Your task to perform on an android device: What is the recent news? Image 0: 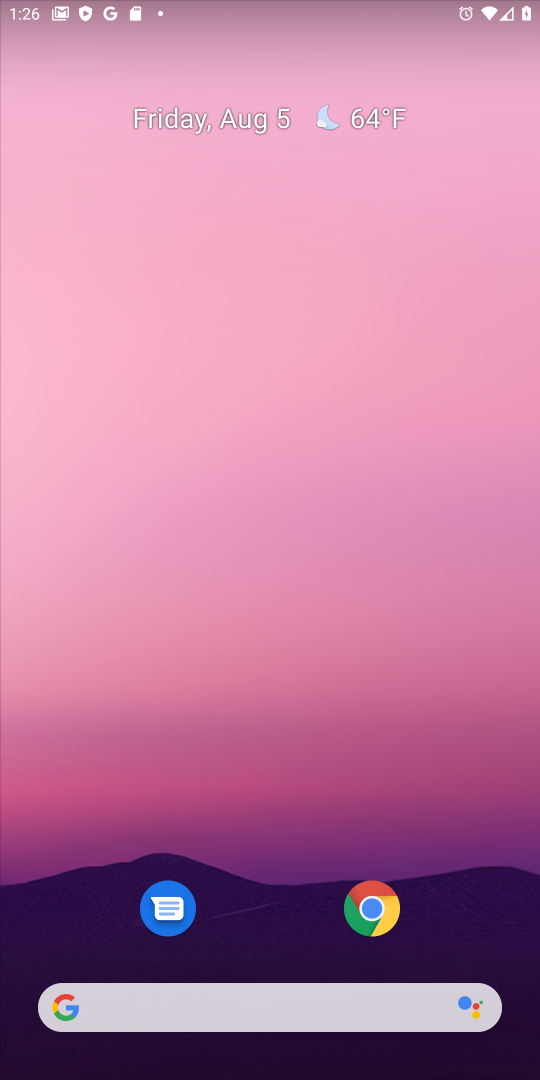
Step 0: press home button
Your task to perform on an android device: What is the recent news? Image 1: 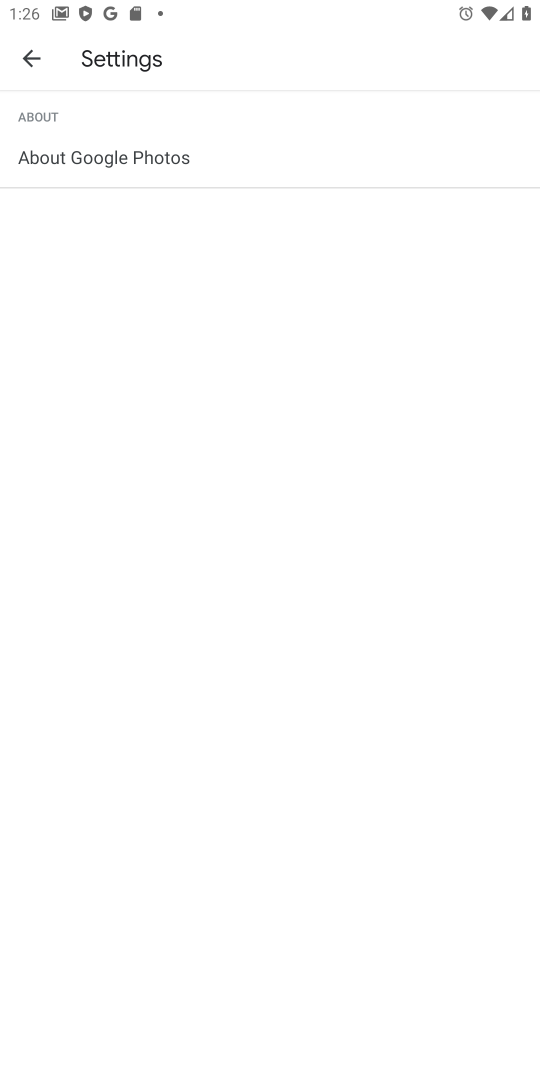
Step 1: click (227, 144)
Your task to perform on an android device: What is the recent news? Image 2: 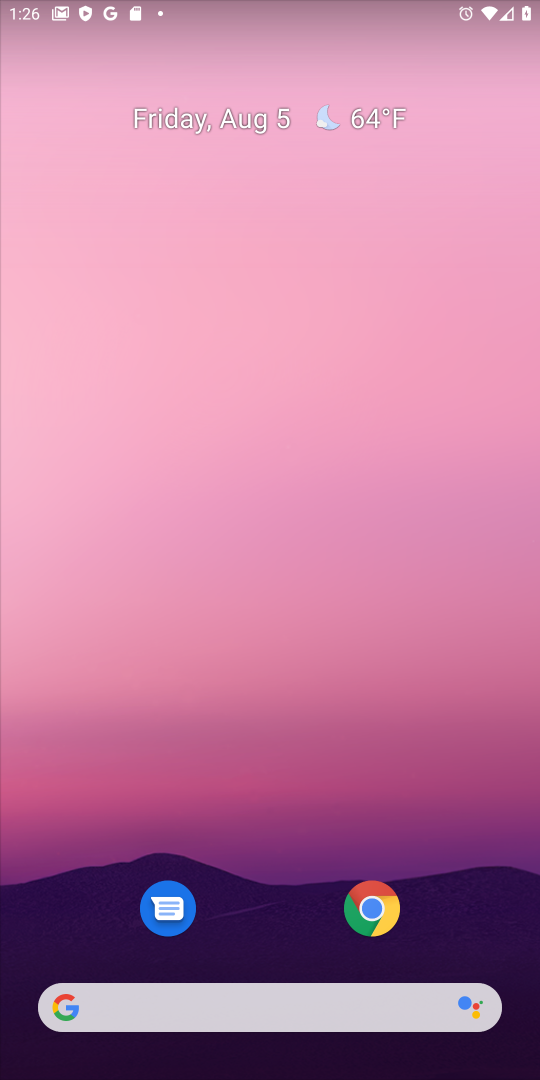
Step 2: click (398, 909)
Your task to perform on an android device: What is the recent news? Image 3: 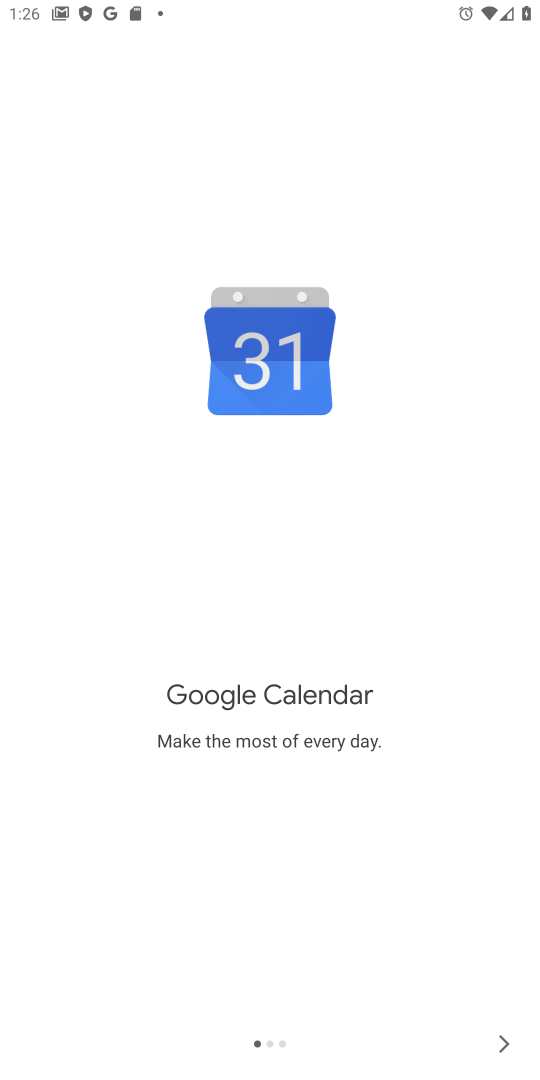
Step 3: press home button
Your task to perform on an android device: What is the recent news? Image 4: 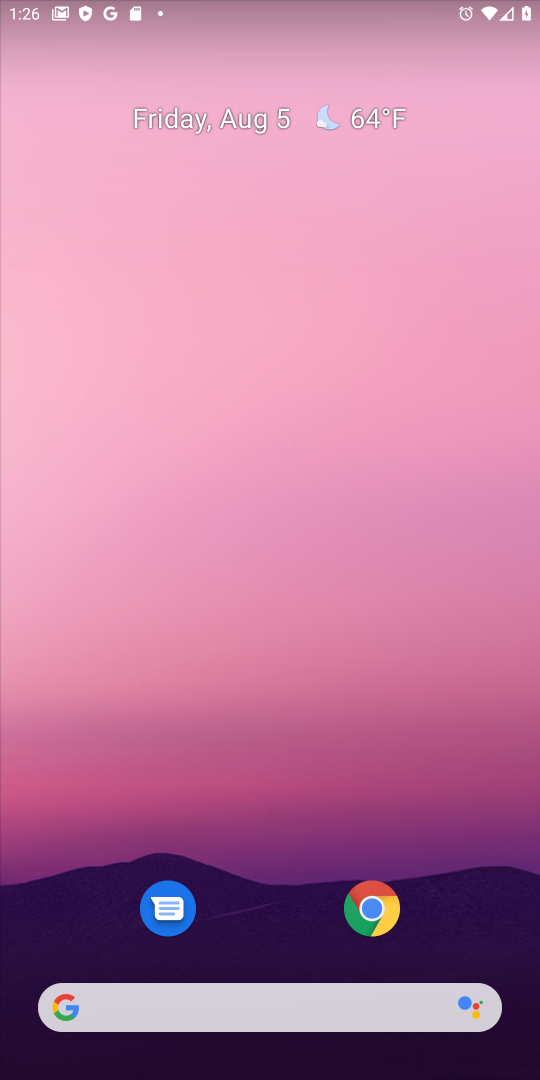
Step 4: click (374, 939)
Your task to perform on an android device: What is the recent news? Image 5: 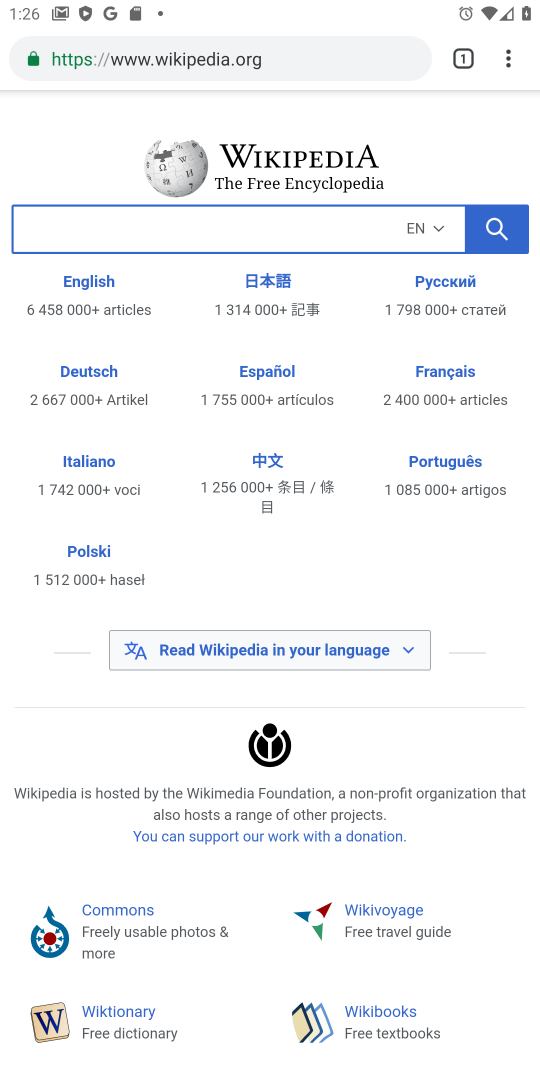
Step 5: click (359, 51)
Your task to perform on an android device: What is the recent news? Image 6: 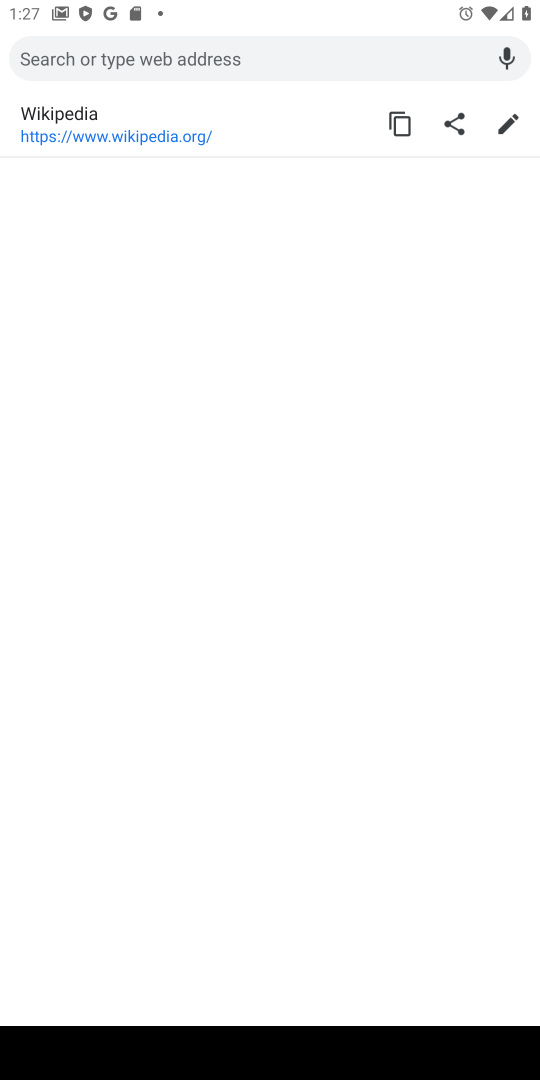
Step 6: type "What is the recent news?"
Your task to perform on an android device: What is the recent news? Image 7: 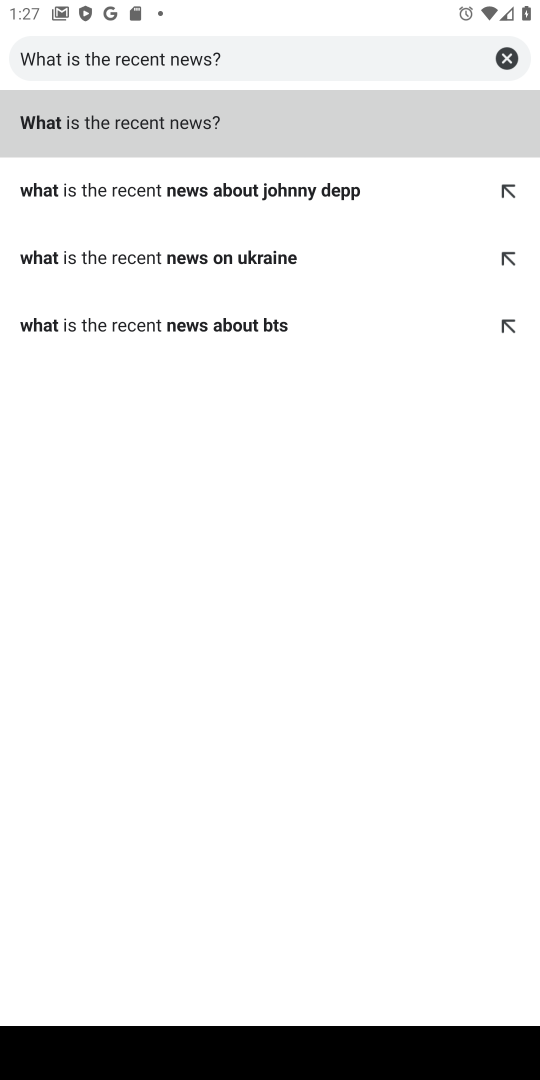
Step 7: click (89, 123)
Your task to perform on an android device: What is the recent news? Image 8: 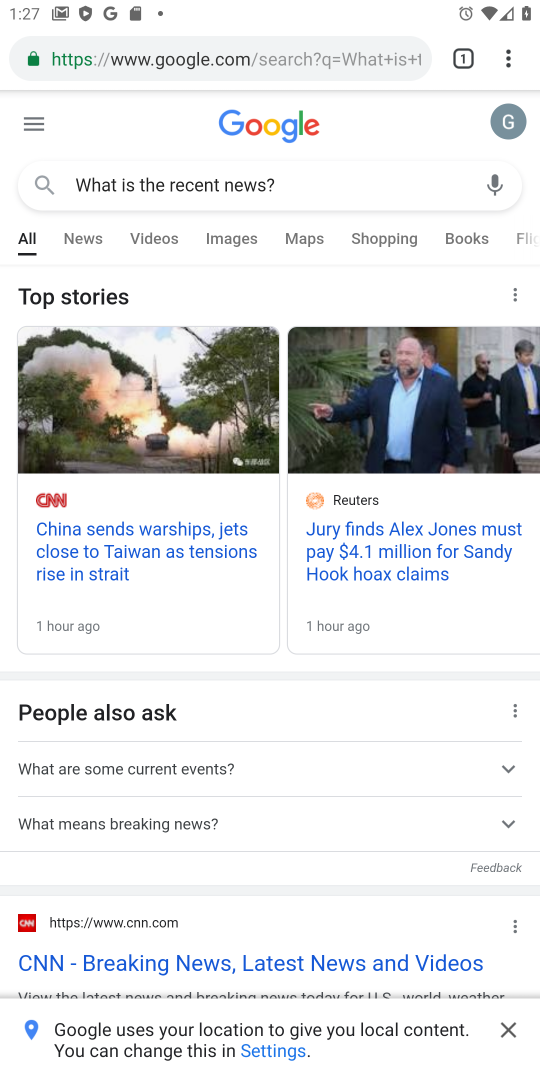
Step 8: task complete